Your task to perform on an android device: Open notification settings Image 0: 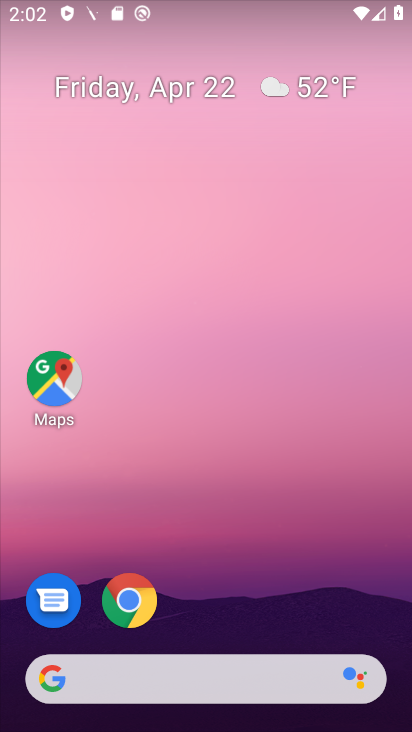
Step 0: drag from (296, 577) to (255, 27)
Your task to perform on an android device: Open notification settings Image 1: 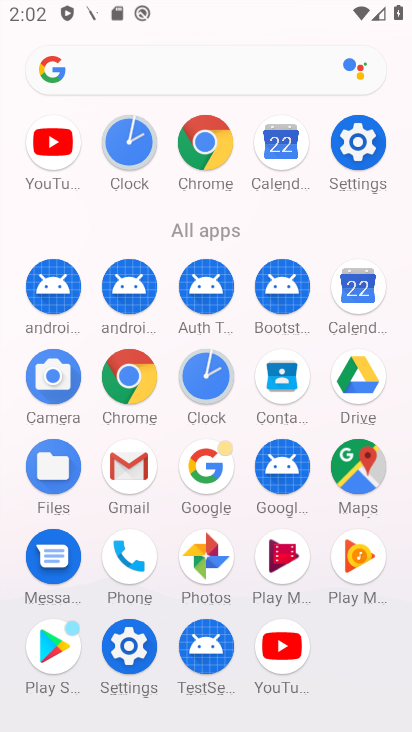
Step 1: click (127, 645)
Your task to perform on an android device: Open notification settings Image 2: 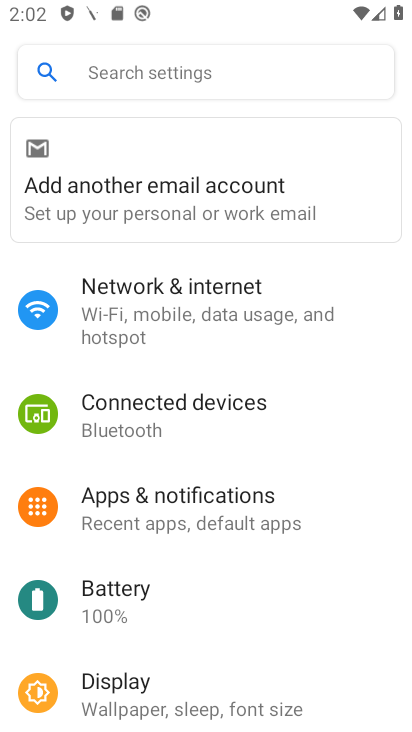
Step 2: drag from (297, 538) to (380, 165)
Your task to perform on an android device: Open notification settings Image 3: 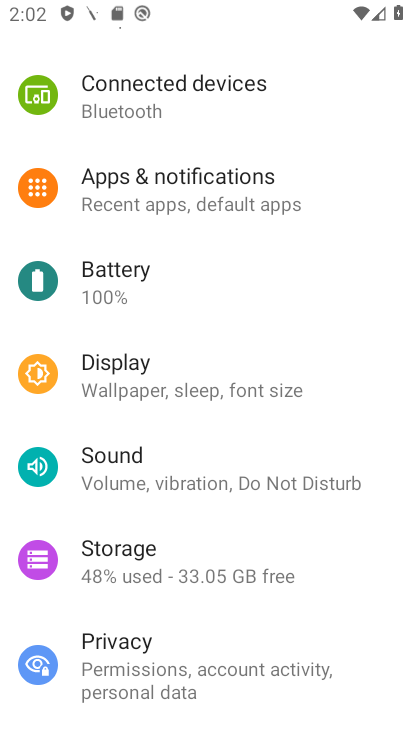
Step 3: click (221, 180)
Your task to perform on an android device: Open notification settings Image 4: 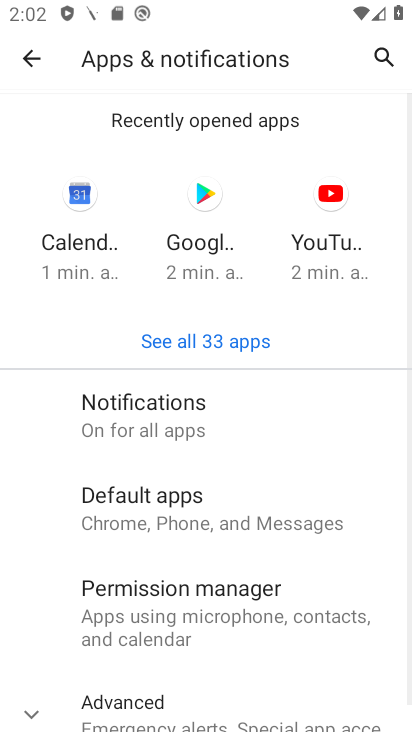
Step 4: drag from (302, 535) to (296, 230)
Your task to perform on an android device: Open notification settings Image 5: 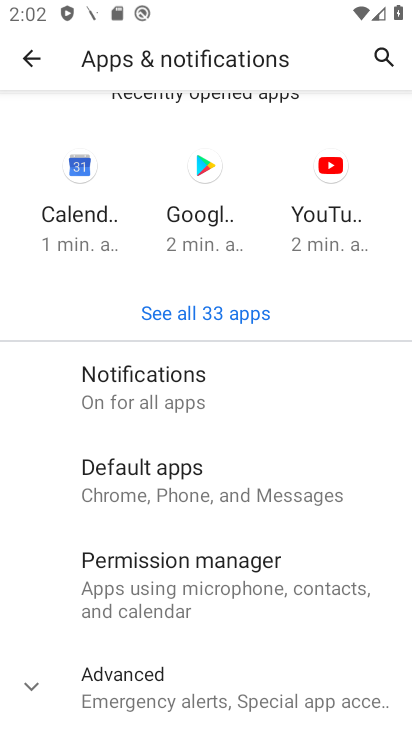
Step 5: click (164, 366)
Your task to perform on an android device: Open notification settings Image 6: 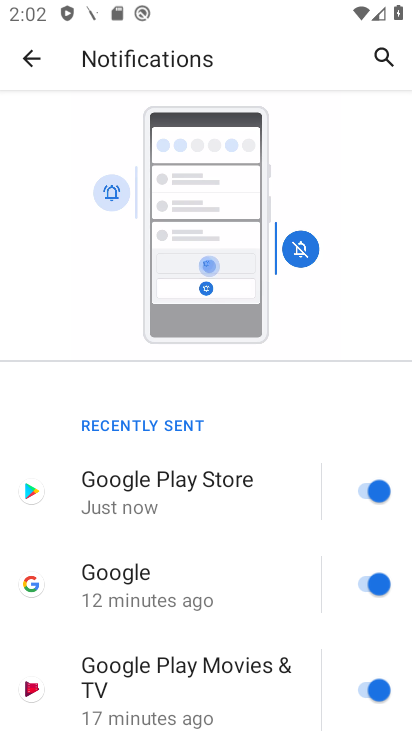
Step 6: drag from (276, 564) to (330, 242)
Your task to perform on an android device: Open notification settings Image 7: 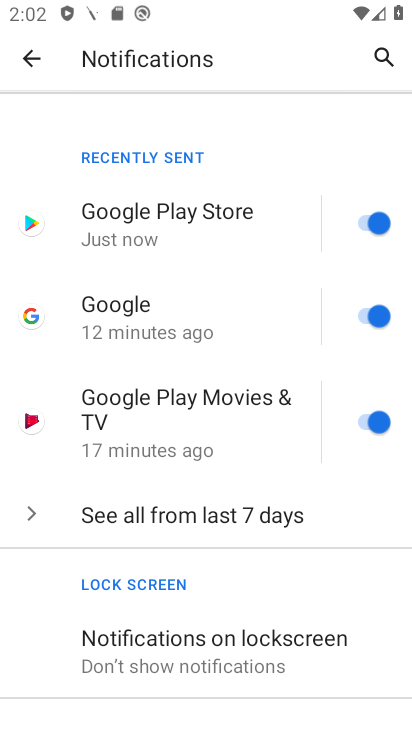
Step 7: drag from (261, 518) to (280, 141)
Your task to perform on an android device: Open notification settings Image 8: 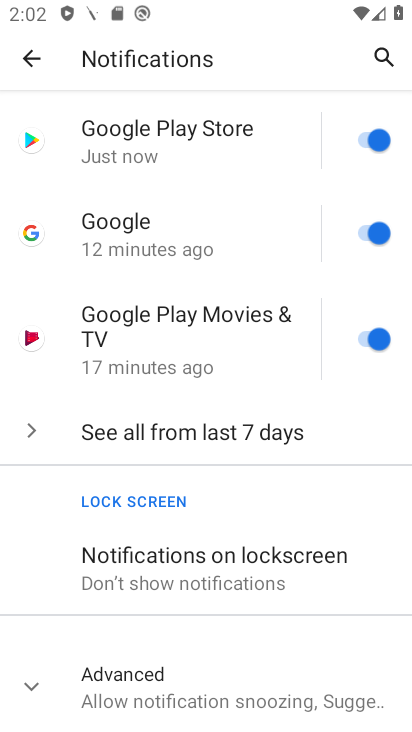
Step 8: click (27, 681)
Your task to perform on an android device: Open notification settings Image 9: 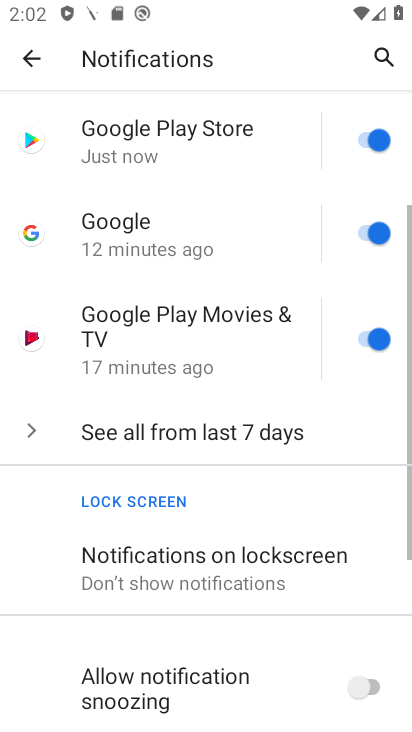
Step 9: task complete